Your task to perform on an android device: turn notification dots off Image 0: 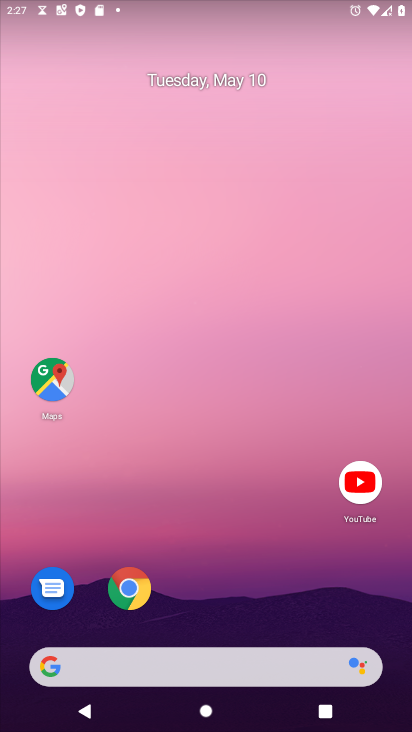
Step 0: drag from (248, 602) to (232, 199)
Your task to perform on an android device: turn notification dots off Image 1: 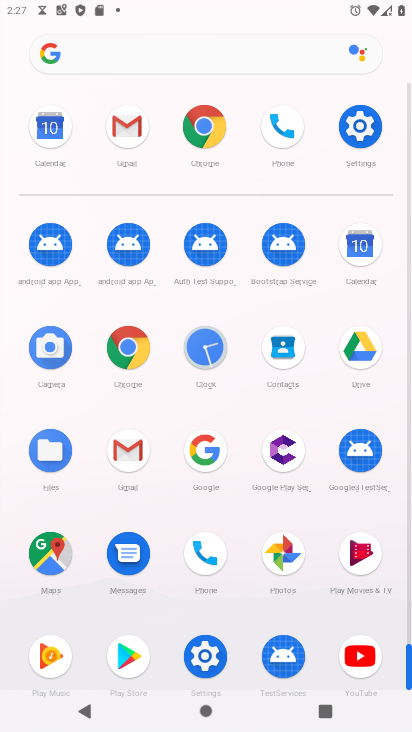
Step 1: click (355, 128)
Your task to perform on an android device: turn notification dots off Image 2: 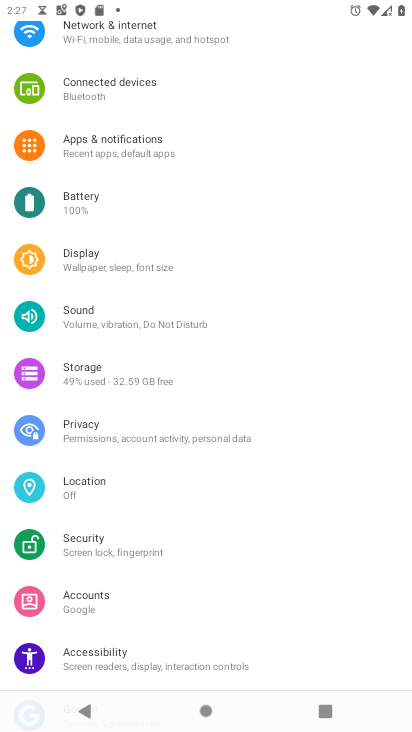
Step 2: drag from (200, 84) to (174, 620)
Your task to perform on an android device: turn notification dots off Image 3: 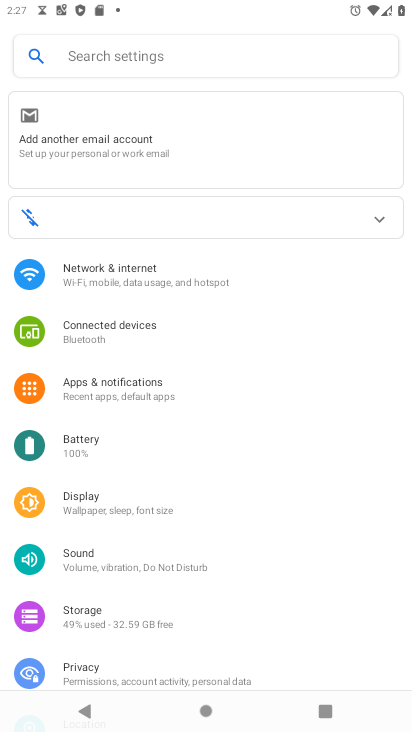
Step 3: click (212, 43)
Your task to perform on an android device: turn notification dots off Image 4: 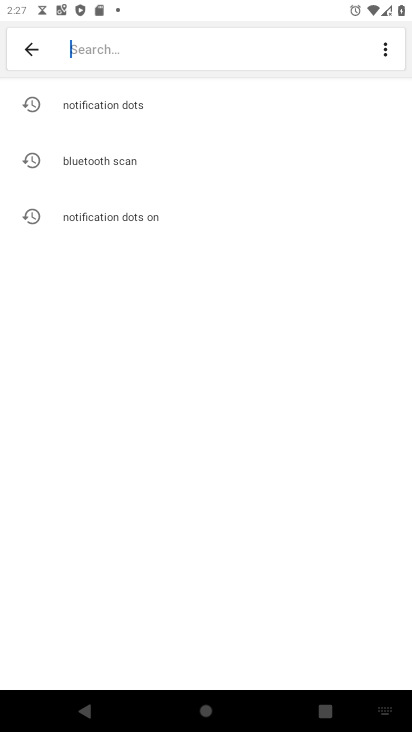
Step 4: click (141, 108)
Your task to perform on an android device: turn notification dots off Image 5: 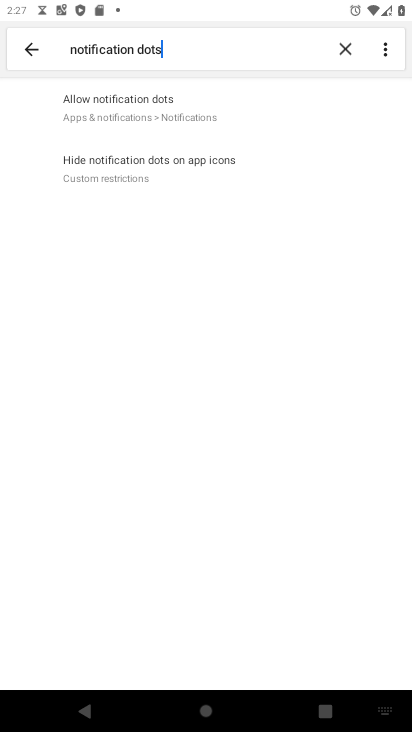
Step 5: click (181, 108)
Your task to perform on an android device: turn notification dots off Image 6: 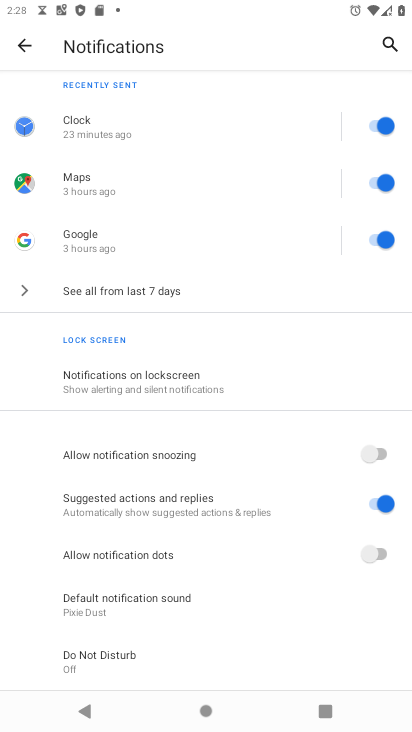
Step 6: task complete